Your task to perform on an android device: Go to accessibility settings Image 0: 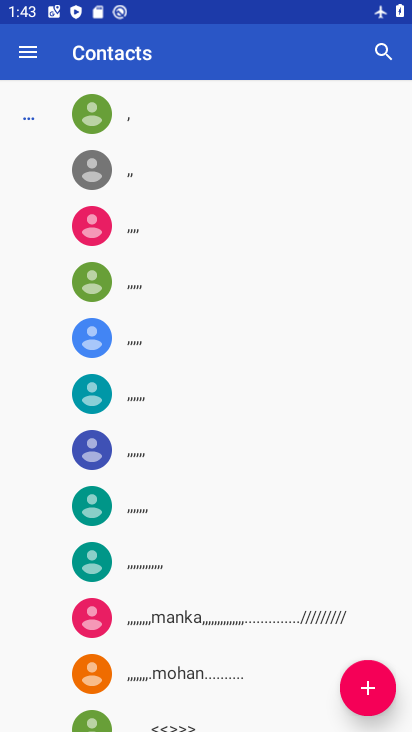
Step 0: press home button
Your task to perform on an android device: Go to accessibility settings Image 1: 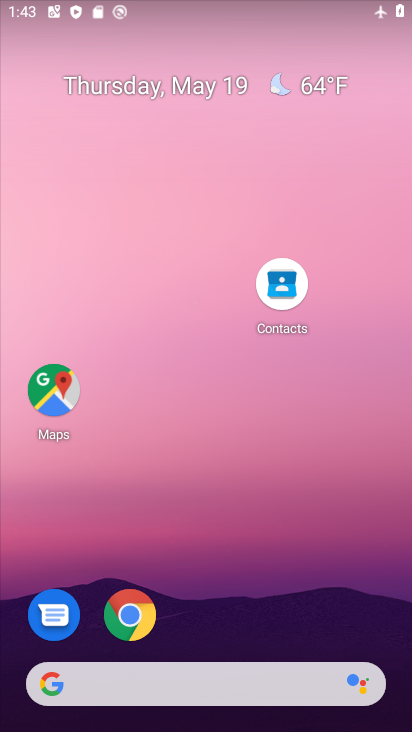
Step 1: drag from (177, 570) to (142, 85)
Your task to perform on an android device: Go to accessibility settings Image 2: 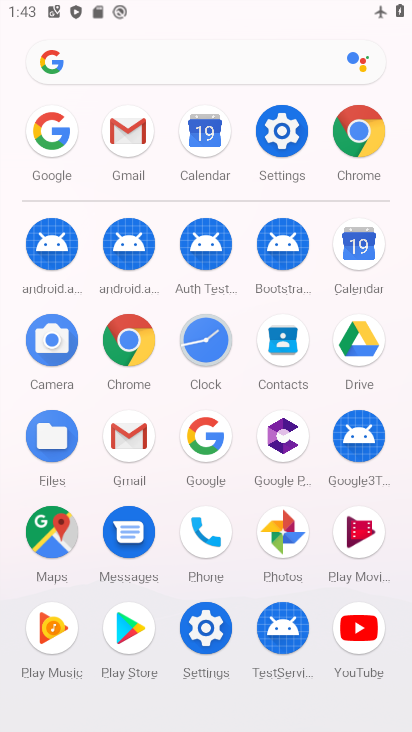
Step 2: click (289, 156)
Your task to perform on an android device: Go to accessibility settings Image 3: 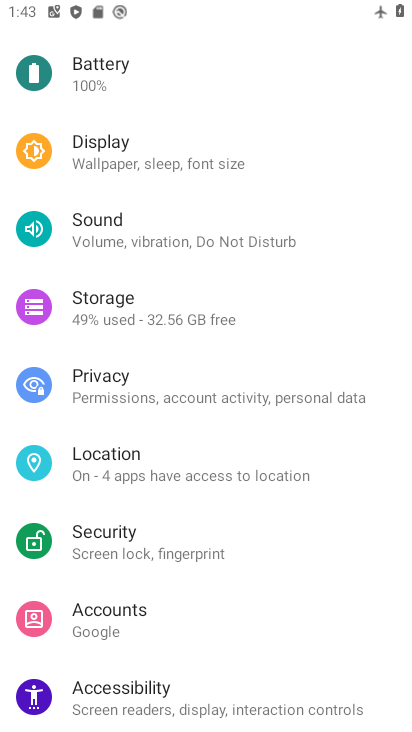
Step 3: drag from (161, 500) to (175, 323)
Your task to perform on an android device: Go to accessibility settings Image 4: 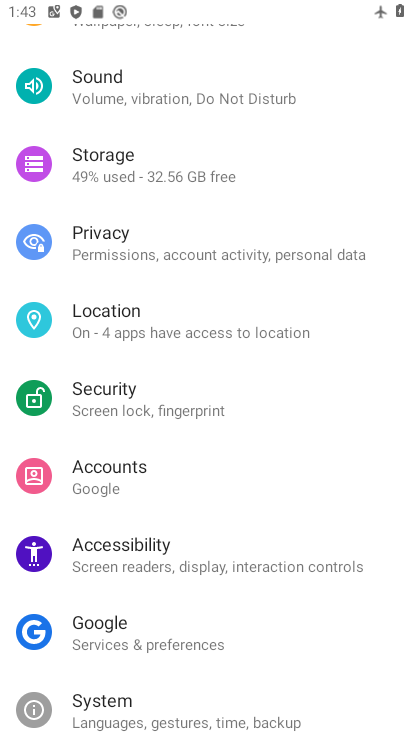
Step 4: click (159, 556)
Your task to perform on an android device: Go to accessibility settings Image 5: 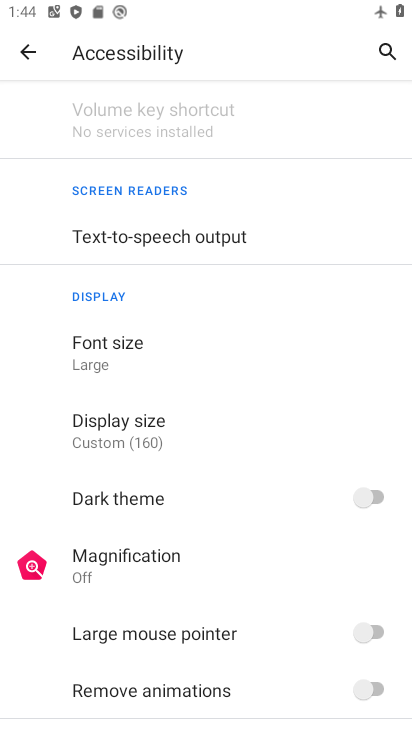
Step 5: task complete